Your task to perform on an android device: Open Wikipedia Image 0: 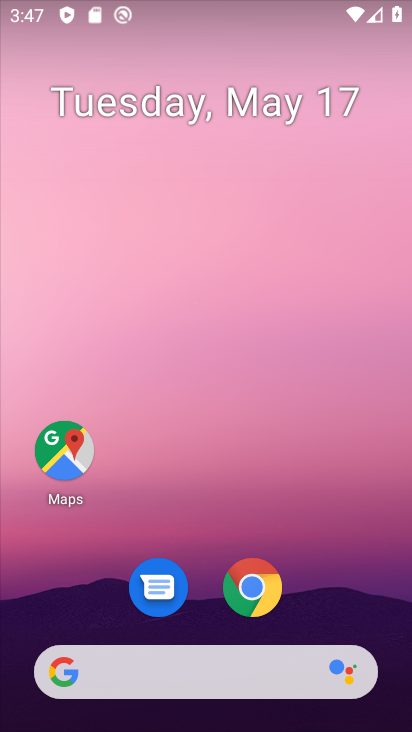
Step 0: drag from (239, 697) to (258, 124)
Your task to perform on an android device: Open Wikipedia Image 1: 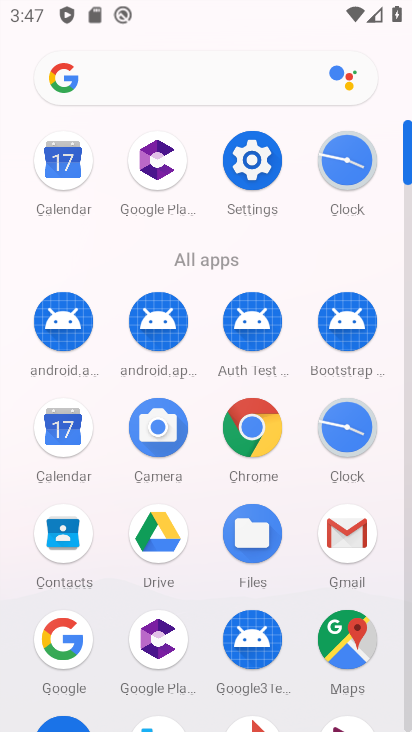
Step 1: click (250, 444)
Your task to perform on an android device: Open Wikipedia Image 2: 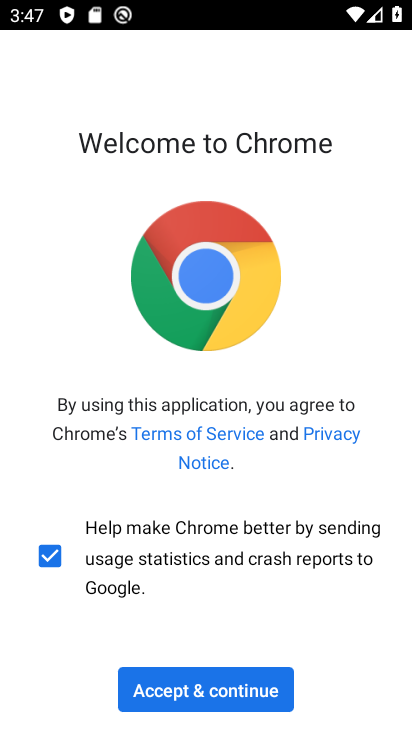
Step 2: click (199, 698)
Your task to perform on an android device: Open Wikipedia Image 3: 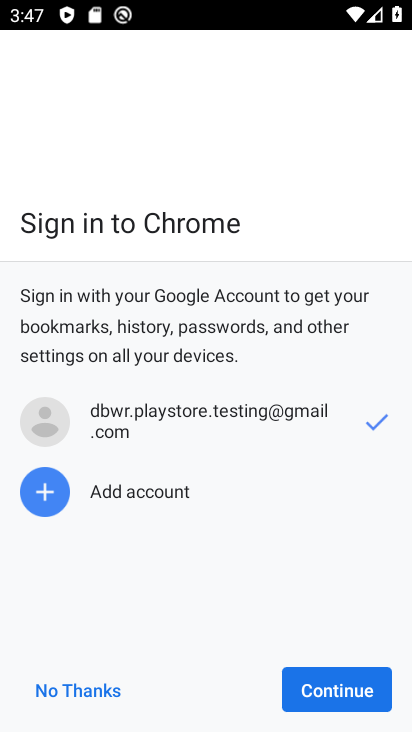
Step 3: click (296, 695)
Your task to perform on an android device: Open Wikipedia Image 4: 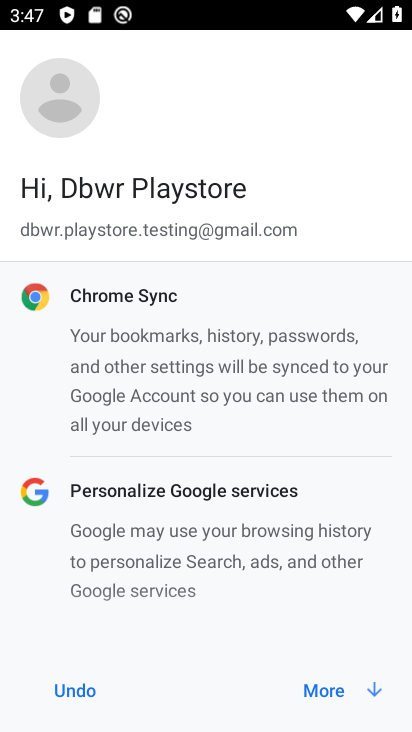
Step 4: click (349, 678)
Your task to perform on an android device: Open Wikipedia Image 5: 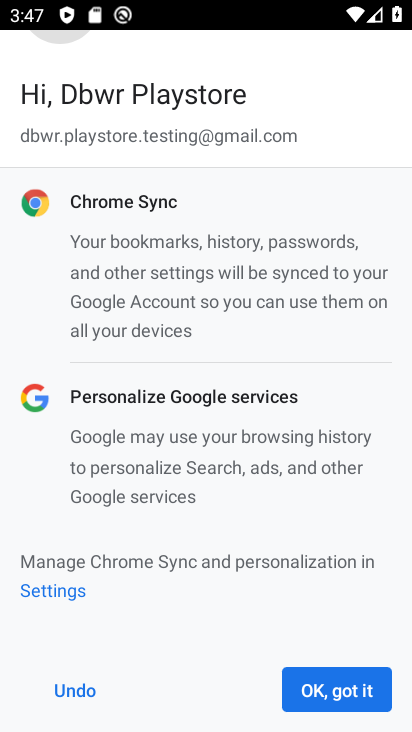
Step 5: click (353, 685)
Your task to perform on an android device: Open Wikipedia Image 6: 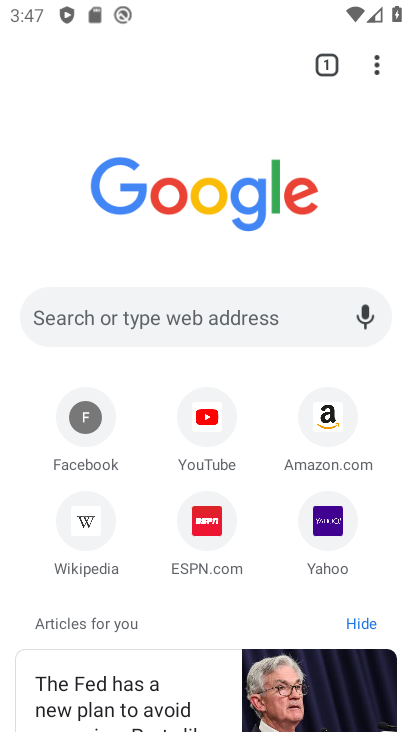
Step 6: click (112, 537)
Your task to perform on an android device: Open Wikipedia Image 7: 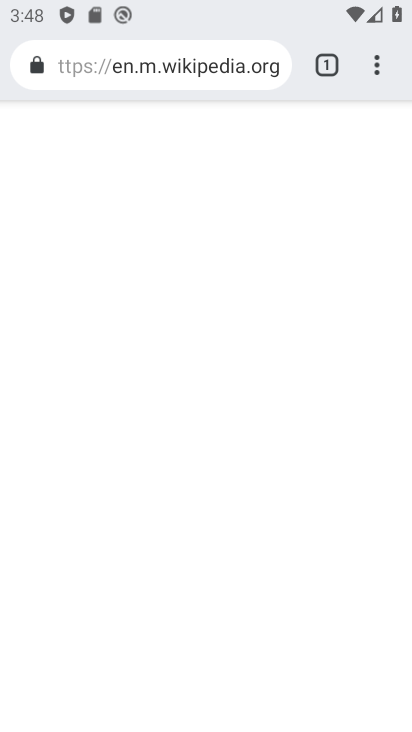
Step 7: task complete